Your task to perform on an android device: Open the calendar app, open the side menu, and click the "Day" option Image 0: 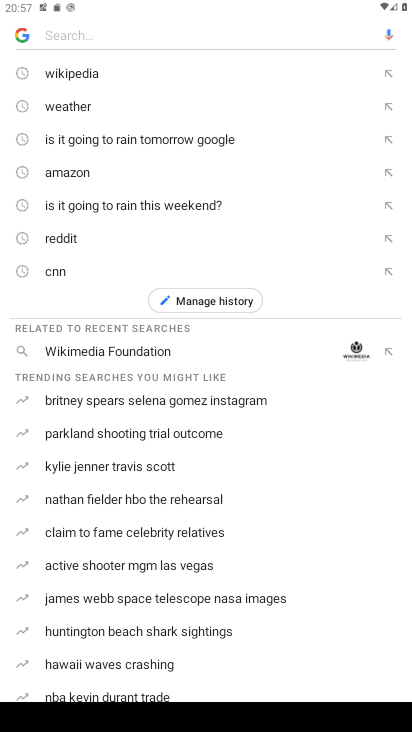
Step 0: press back button
Your task to perform on an android device: Open the calendar app, open the side menu, and click the "Day" option Image 1: 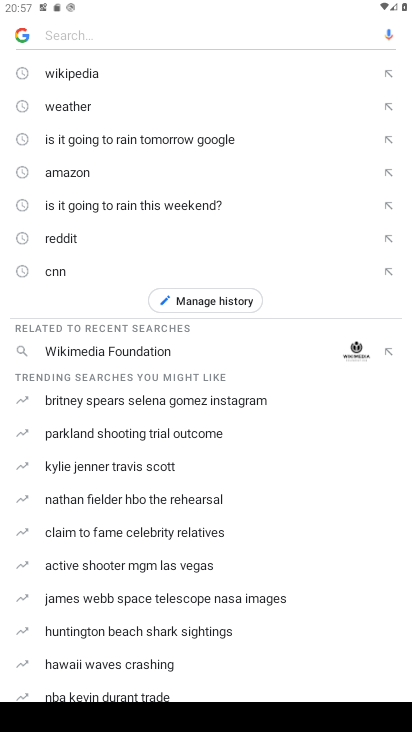
Step 1: press back button
Your task to perform on an android device: Open the calendar app, open the side menu, and click the "Day" option Image 2: 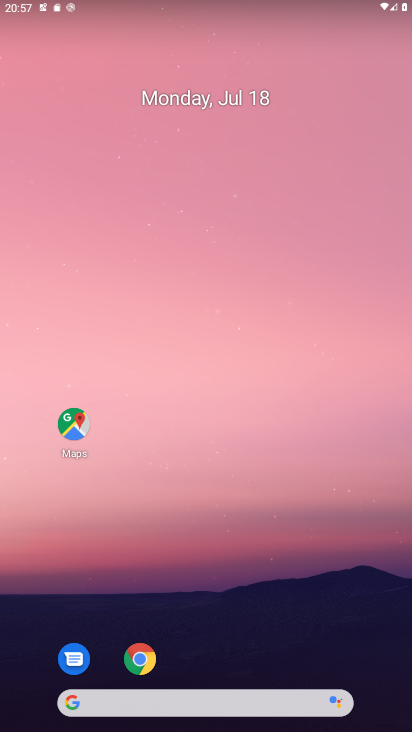
Step 2: drag from (198, 682) to (139, 281)
Your task to perform on an android device: Open the calendar app, open the side menu, and click the "Day" option Image 3: 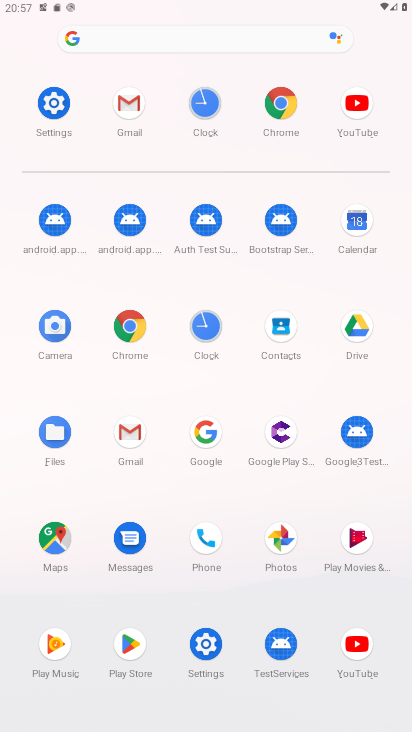
Step 3: click (349, 225)
Your task to perform on an android device: Open the calendar app, open the side menu, and click the "Day" option Image 4: 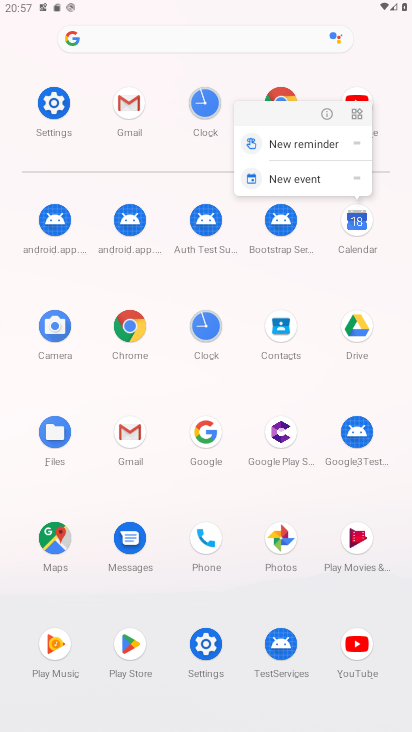
Step 4: click (359, 228)
Your task to perform on an android device: Open the calendar app, open the side menu, and click the "Day" option Image 5: 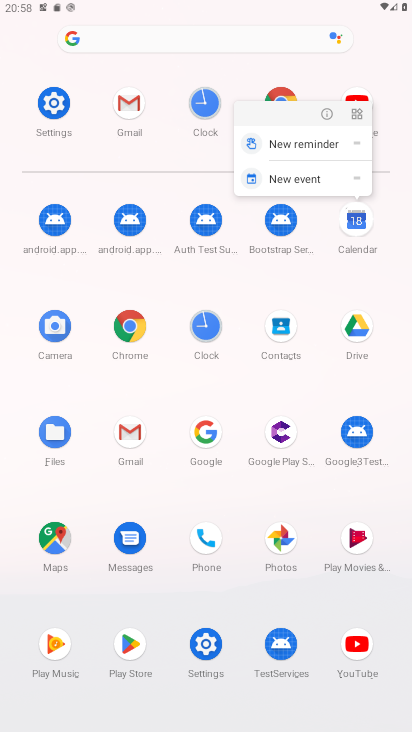
Step 5: click (360, 227)
Your task to perform on an android device: Open the calendar app, open the side menu, and click the "Day" option Image 6: 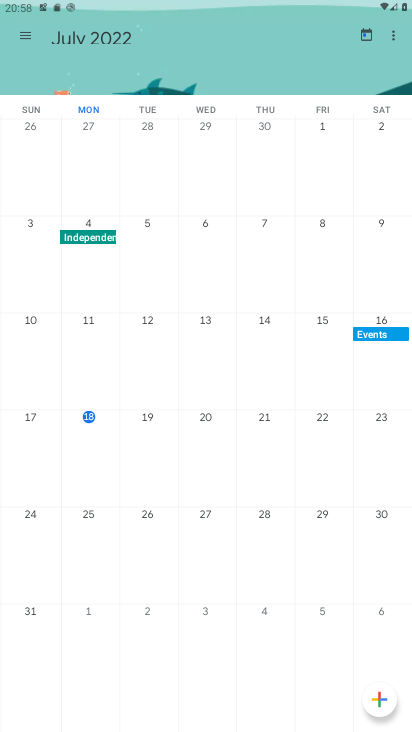
Step 6: click (18, 23)
Your task to perform on an android device: Open the calendar app, open the side menu, and click the "Day" option Image 7: 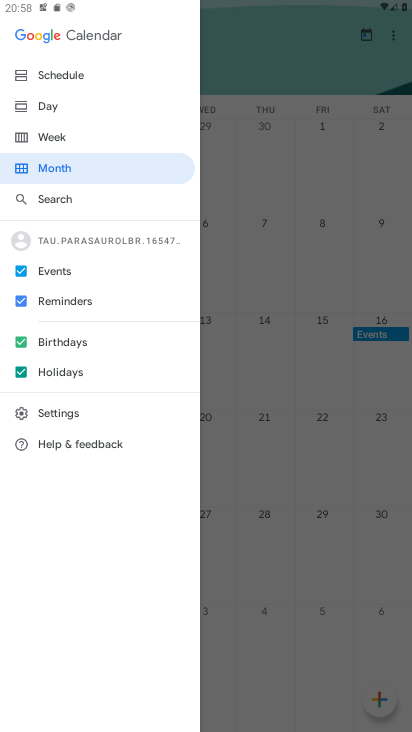
Step 7: click (45, 100)
Your task to perform on an android device: Open the calendar app, open the side menu, and click the "Day" option Image 8: 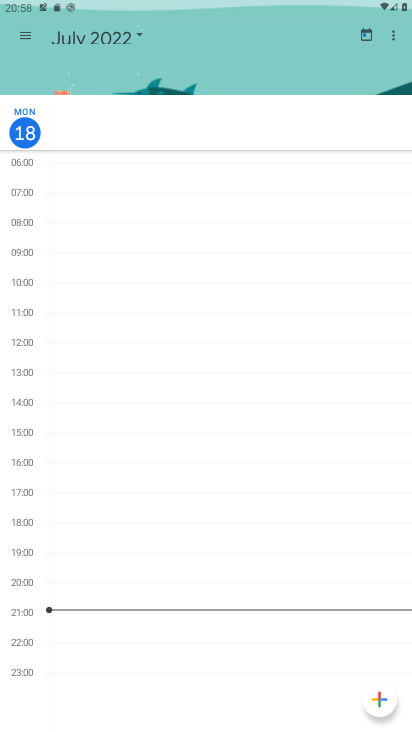
Step 8: task complete